Your task to perform on an android device: Search for sushi restaurants on Maps Image 0: 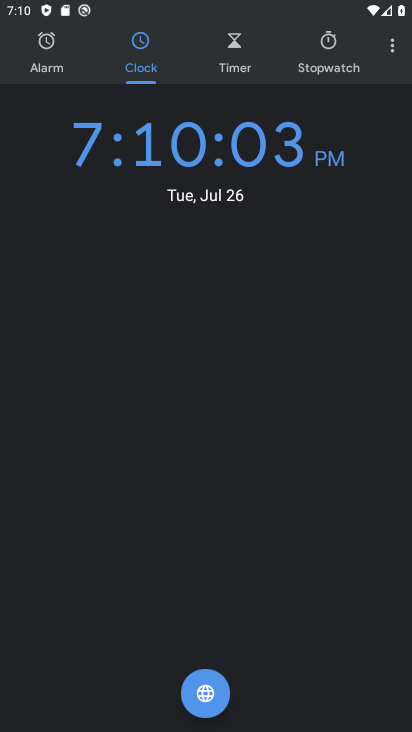
Step 0: press home button
Your task to perform on an android device: Search for sushi restaurants on Maps Image 1: 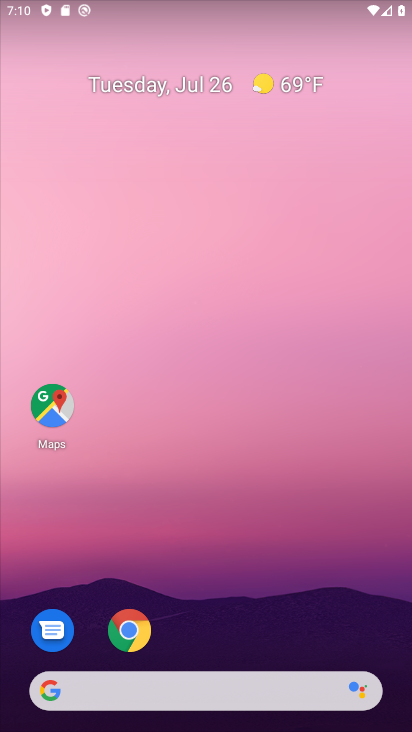
Step 1: drag from (258, 545) to (228, 144)
Your task to perform on an android device: Search for sushi restaurants on Maps Image 2: 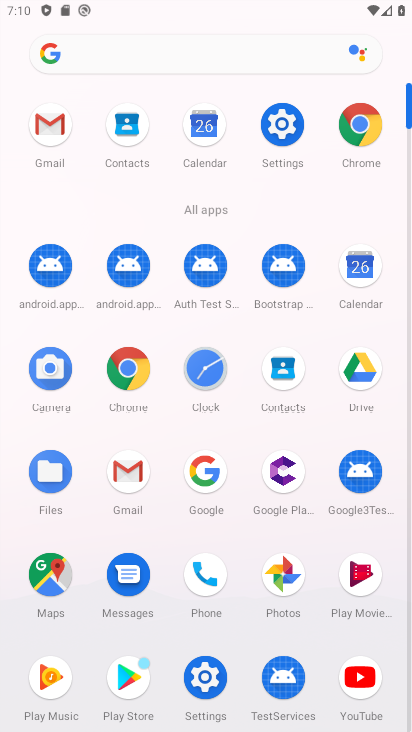
Step 2: click (61, 143)
Your task to perform on an android device: Search for sushi restaurants on Maps Image 3: 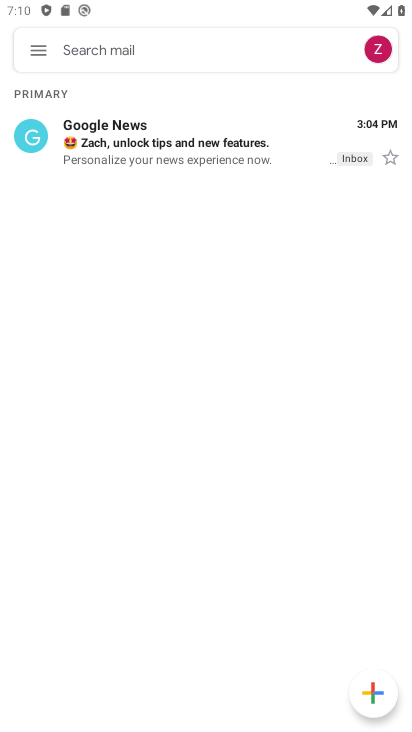
Step 3: press home button
Your task to perform on an android device: Search for sushi restaurants on Maps Image 4: 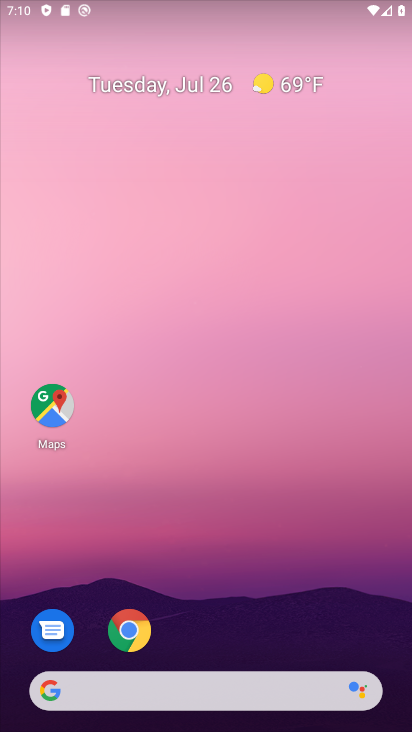
Step 4: drag from (252, 558) to (238, 22)
Your task to perform on an android device: Search for sushi restaurants on Maps Image 5: 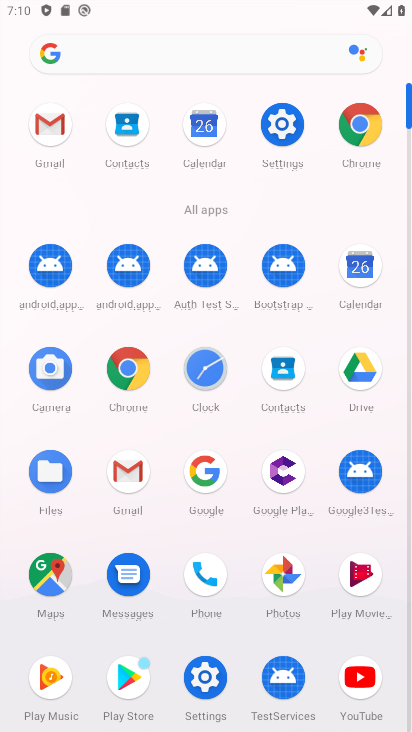
Step 5: click (61, 578)
Your task to perform on an android device: Search for sushi restaurants on Maps Image 6: 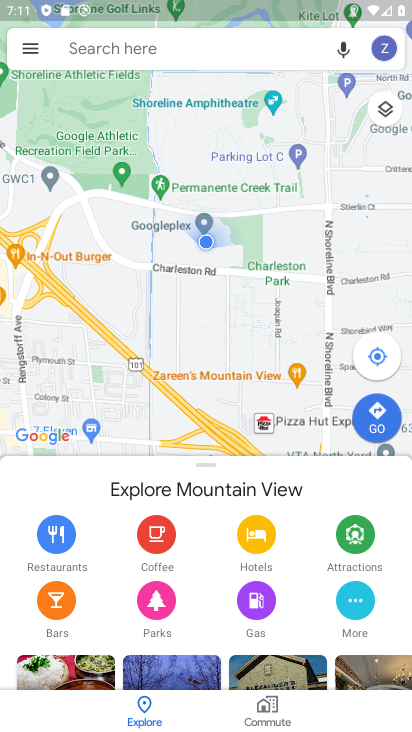
Step 6: click (157, 57)
Your task to perform on an android device: Search for sushi restaurants on Maps Image 7: 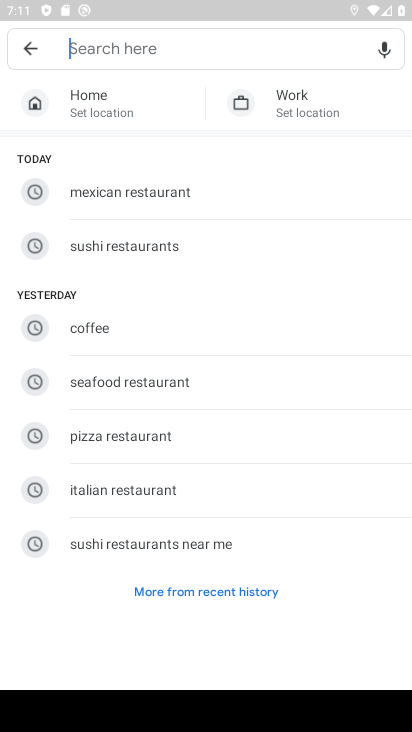
Step 7: click (152, 252)
Your task to perform on an android device: Search for sushi restaurants on Maps Image 8: 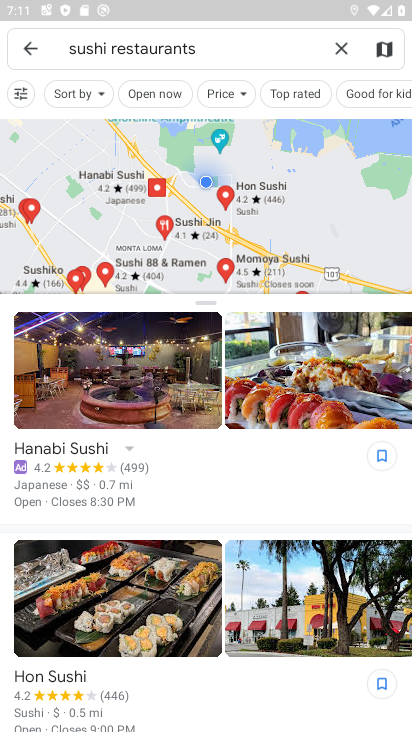
Step 8: task complete